Your task to perform on an android device: clear all cookies in the chrome app Image 0: 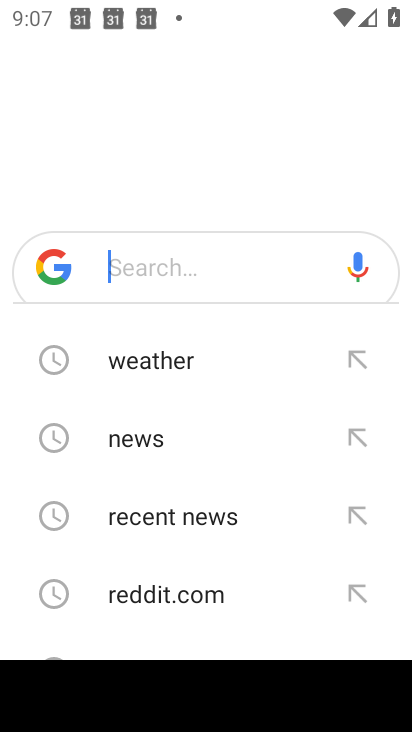
Step 0: press back button
Your task to perform on an android device: clear all cookies in the chrome app Image 1: 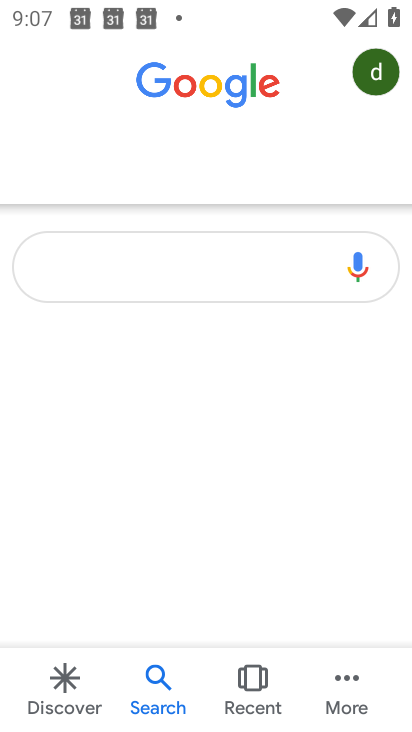
Step 1: press back button
Your task to perform on an android device: clear all cookies in the chrome app Image 2: 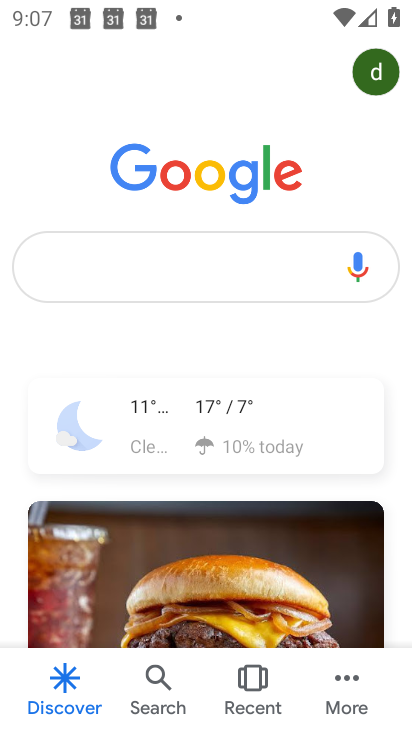
Step 2: press back button
Your task to perform on an android device: clear all cookies in the chrome app Image 3: 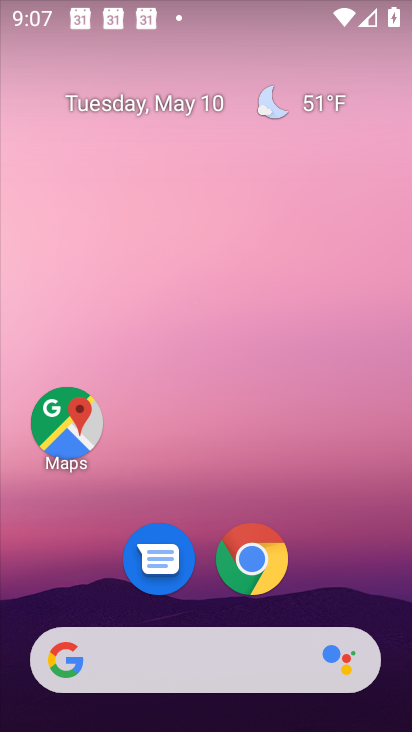
Step 3: click (256, 558)
Your task to perform on an android device: clear all cookies in the chrome app Image 4: 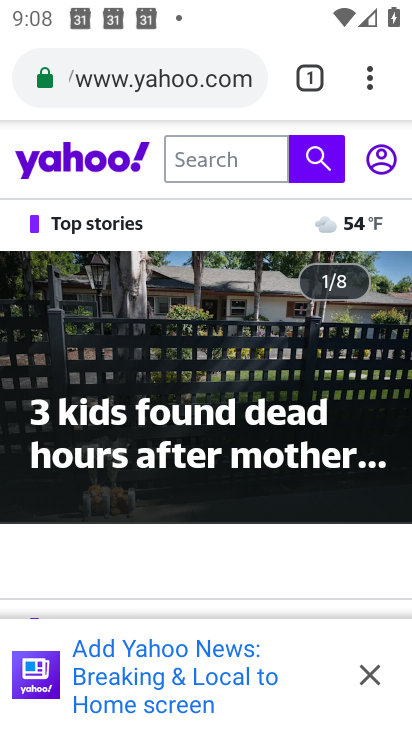
Step 4: click (368, 78)
Your task to perform on an android device: clear all cookies in the chrome app Image 5: 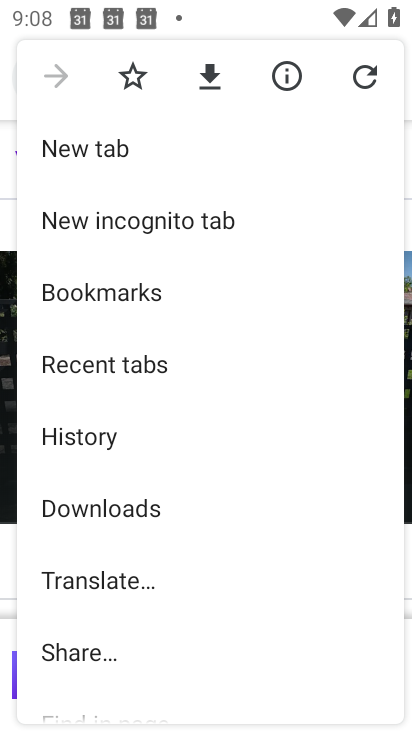
Step 5: drag from (174, 553) to (211, 392)
Your task to perform on an android device: clear all cookies in the chrome app Image 6: 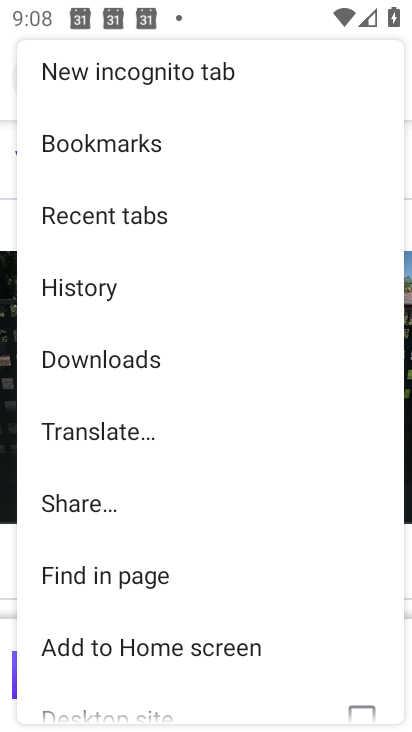
Step 6: drag from (171, 549) to (205, 438)
Your task to perform on an android device: clear all cookies in the chrome app Image 7: 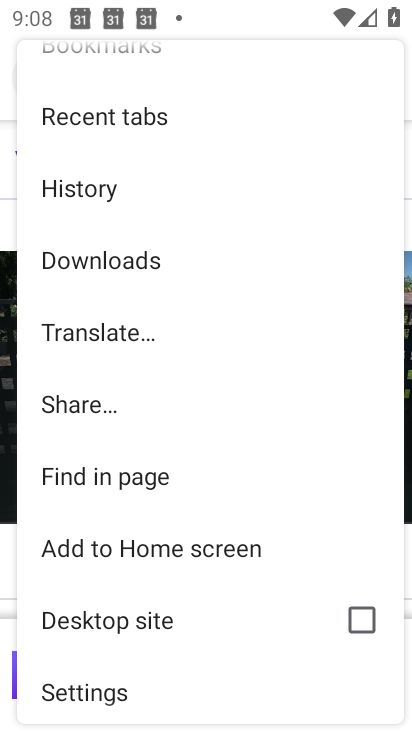
Step 7: drag from (161, 675) to (255, 474)
Your task to perform on an android device: clear all cookies in the chrome app Image 8: 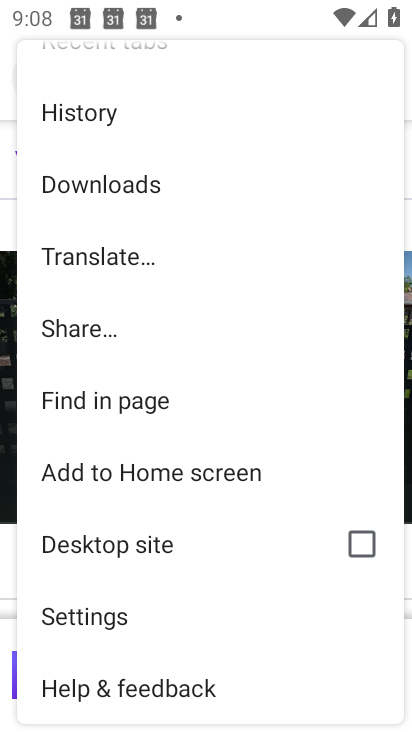
Step 8: click (83, 617)
Your task to perform on an android device: clear all cookies in the chrome app Image 9: 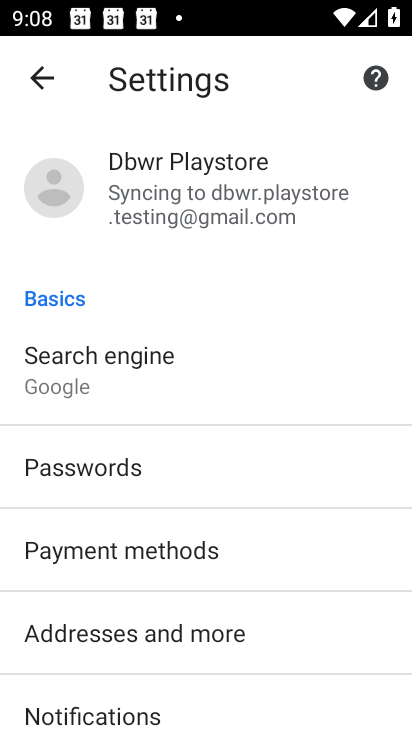
Step 9: drag from (192, 490) to (243, 382)
Your task to perform on an android device: clear all cookies in the chrome app Image 10: 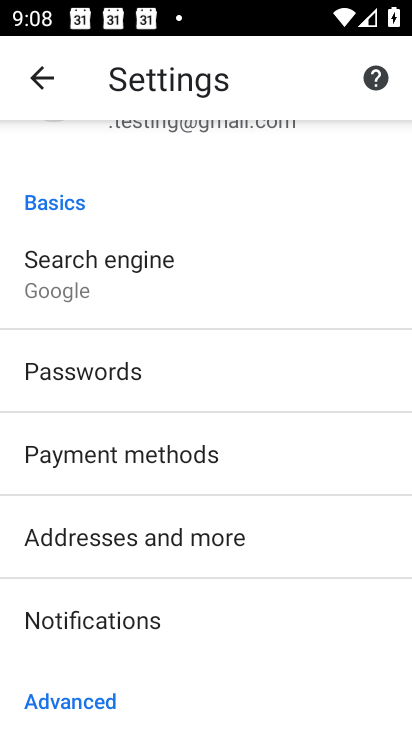
Step 10: drag from (217, 630) to (317, 429)
Your task to perform on an android device: clear all cookies in the chrome app Image 11: 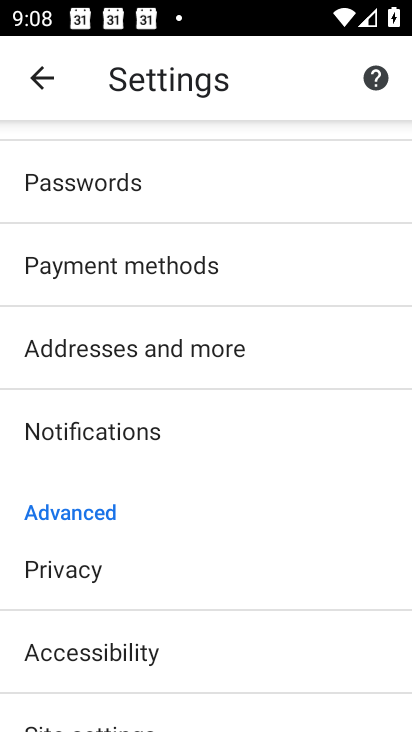
Step 11: click (85, 575)
Your task to perform on an android device: clear all cookies in the chrome app Image 12: 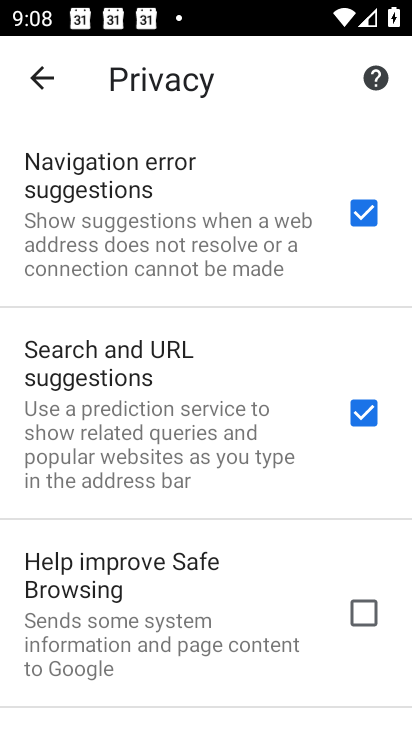
Step 12: drag from (250, 632) to (241, 374)
Your task to perform on an android device: clear all cookies in the chrome app Image 13: 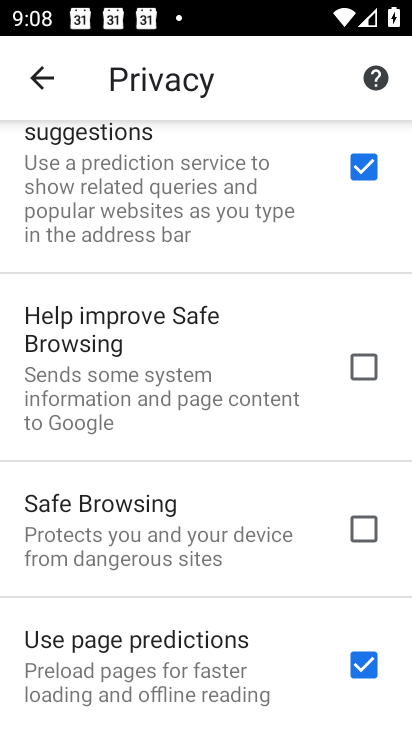
Step 13: drag from (225, 563) to (238, 376)
Your task to perform on an android device: clear all cookies in the chrome app Image 14: 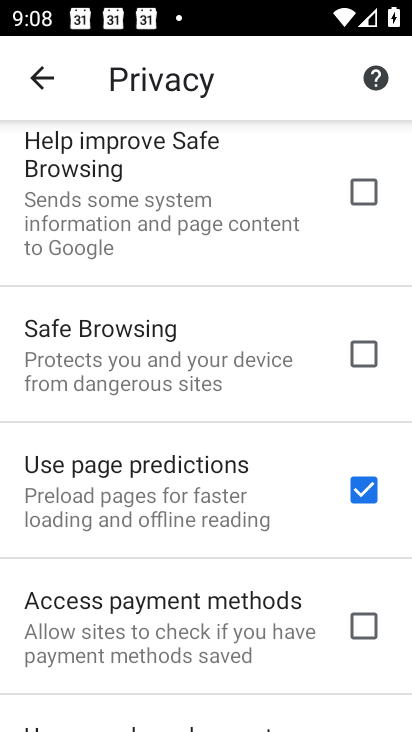
Step 14: drag from (171, 566) to (197, 395)
Your task to perform on an android device: clear all cookies in the chrome app Image 15: 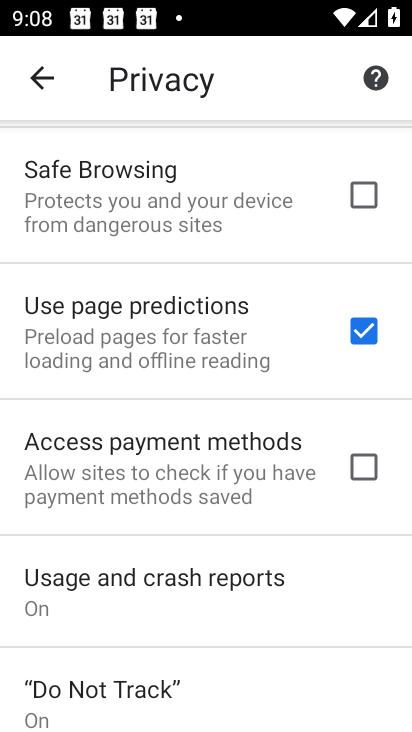
Step 15: drag from (165, 612) to (208, 459)
Your task to perform on an android device: clear all cookies in the chrome app Image 16: 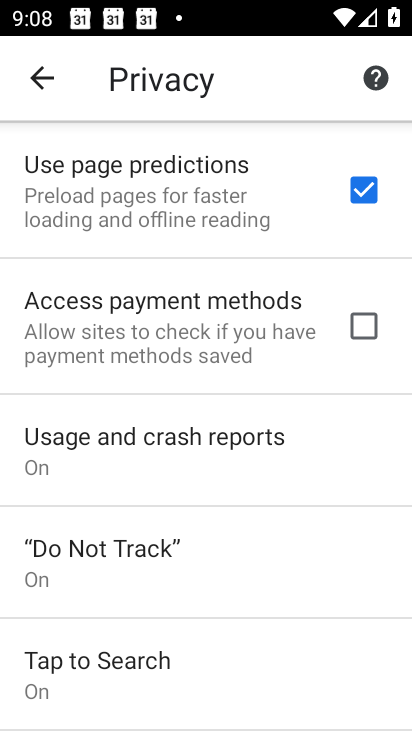
Step 16: drag from (183, 584) to (208, 440)
Your task to perform on an android device: clear all cookies in the chrome app Image 17: 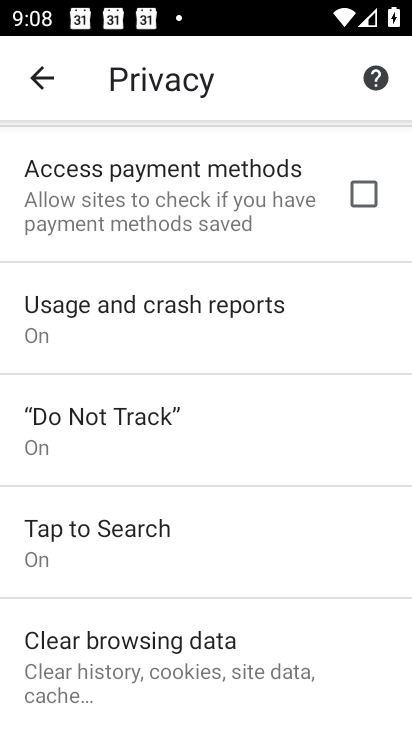
Step 17: click (174, 640)
Your task to perform on an android device: clear all cookies in the chrome app Image 18: 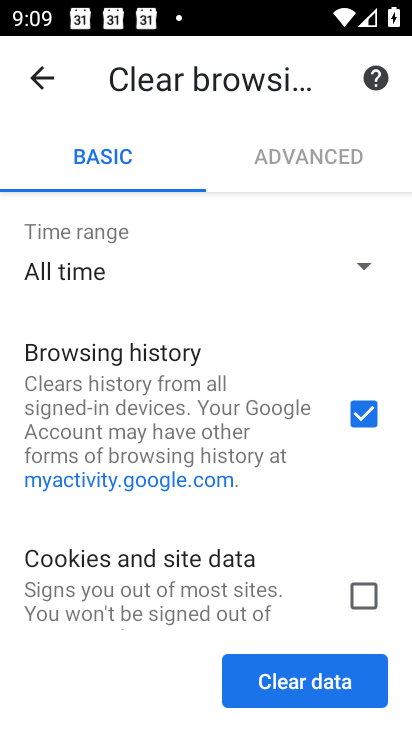
Step 18: click (367, 405)
Your task to perform on an android device: clear all cookies in the chrome app Image 19: 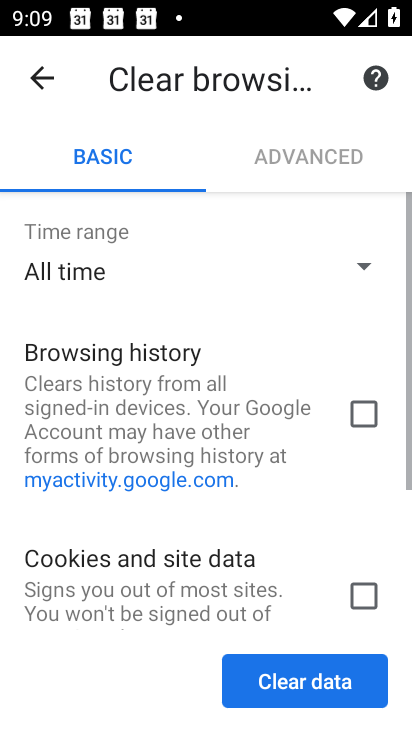
Step 19: click (356, 589)
Your task to perform on an android device: clear all cookies in the chrome app Image 20: 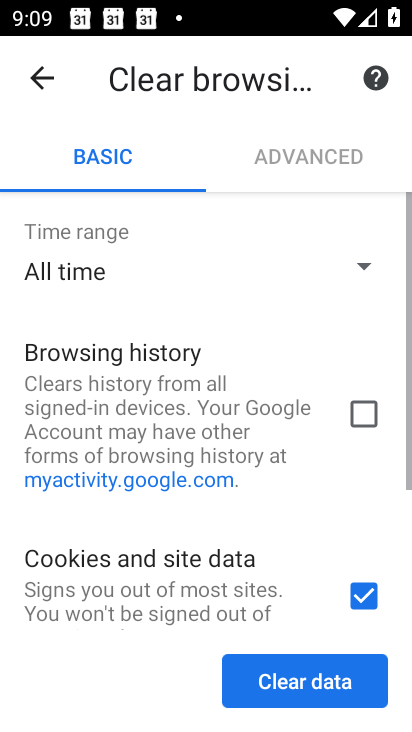
Step 20: click (308, 678)
Your task to perform on an android device: clear all cookies in the chrome app Image 21: 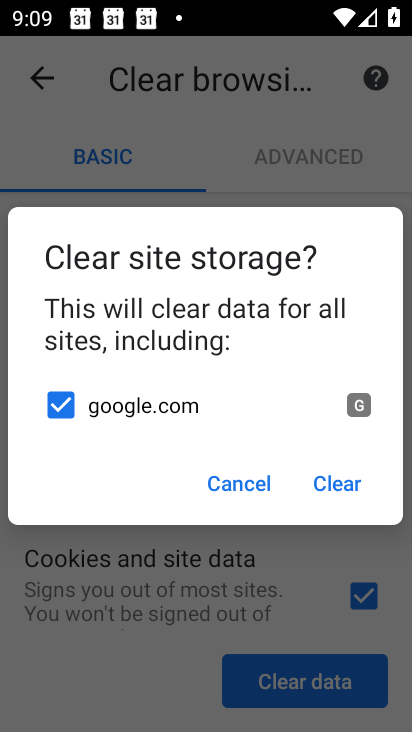
Step 21: click (339, 484)
Your task to perform on an android device: clear all cookies in the chrome app Image 22: 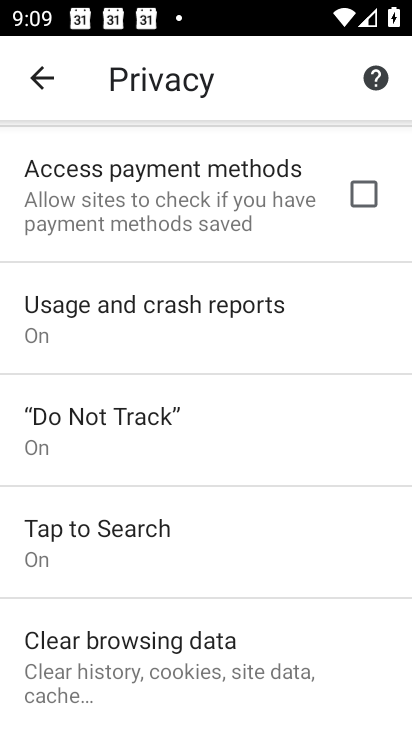
Step 22: task complete